Your task to perform on an android device: Go to battery settings Image 0: 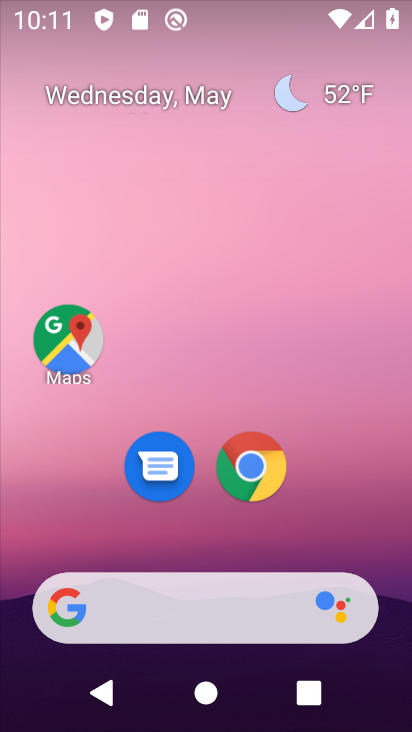
Step 0: drag from (209, 532) to (215, 126)
Your task to perform on an android device: Go to battery settings Image 1: 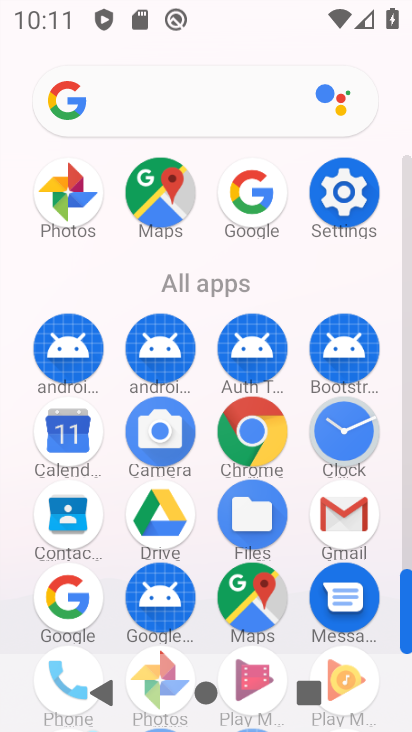
Step 1: click (351, 174)
Your task to perform on an android device: Go to battery settings Image 2: 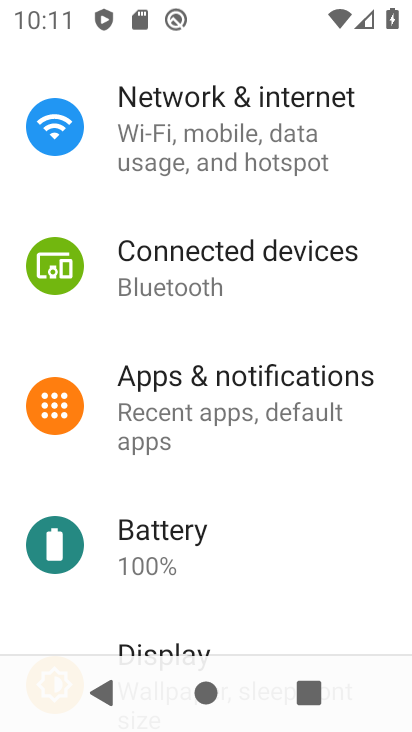
Step 2: click (189, 546)
Your task to perform on an android device: Go to battery settings Image 3: 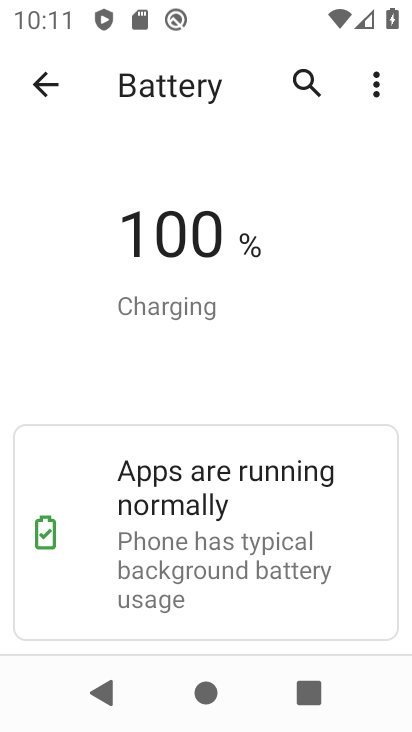
Step 3: task complete